Your task to perform on an android device: turn notification dots on Image 0: 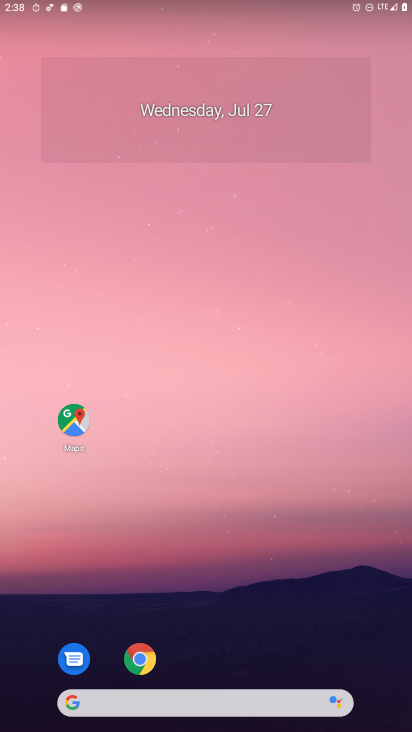
Step 0: press home button
Your task to perform on an android device: turn notification dots on Image 1: 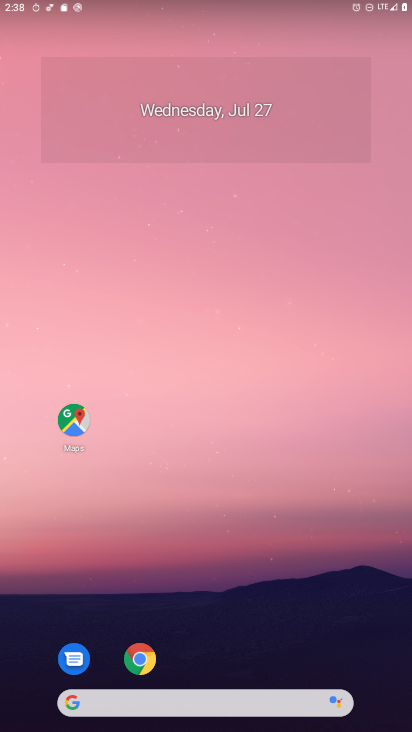
Step 1: drag from (342, 619) to (246, 46)
Your task to perform on an android device: turn notification dots on Image 2: 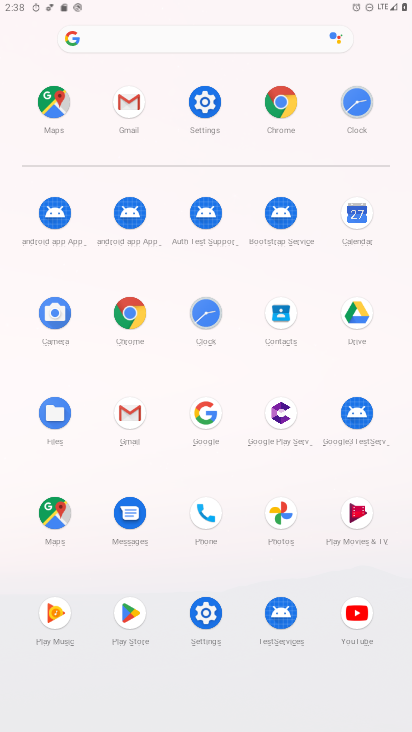
Step 2: click (205, 106)
Your task to perform on an android device: turn notification dots on Image 3: 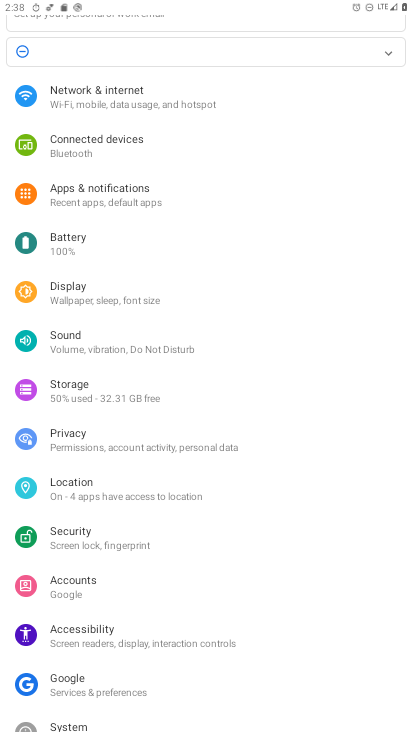
Step 3: click (143, 179)
Your task to perform on an android device: turn notification dots on Image 4: 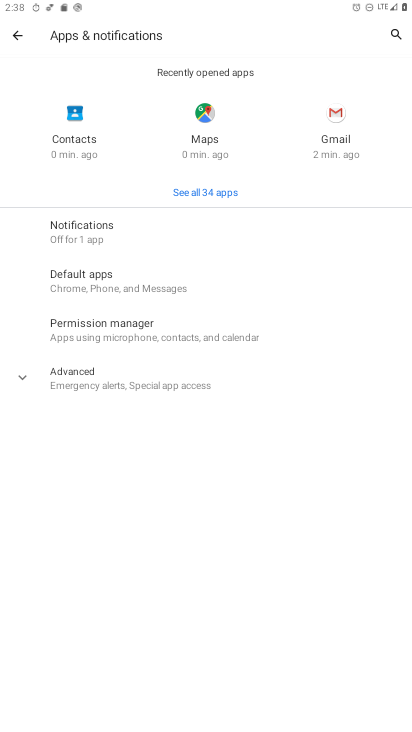
Step 4: click (89, 232)
Your task to perform on an android device: turn notification dots on Image 5: 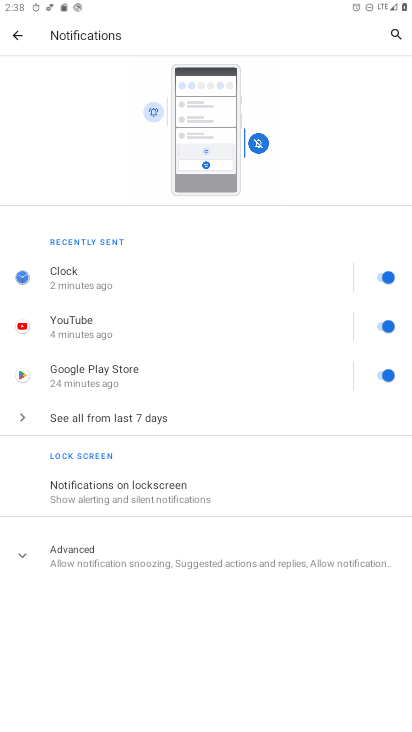
Step 5: click (120, 564)
Your task to perform on an android device: turn notification dots on Image 6: 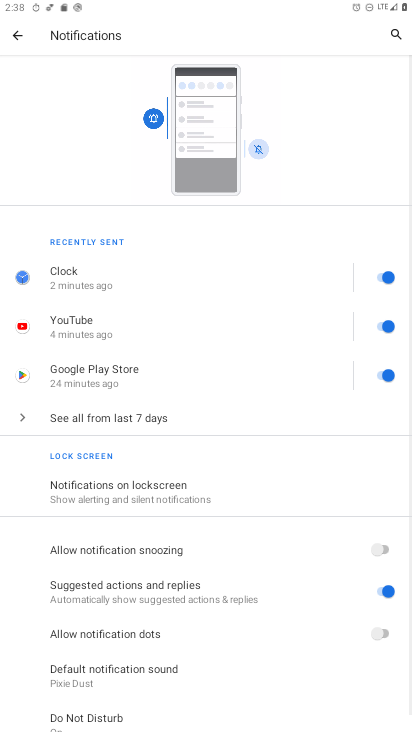
Step 6: drag from (228, 690) to (225, 367)
Your task to perform on an android device: turn notification dots on Image 7: 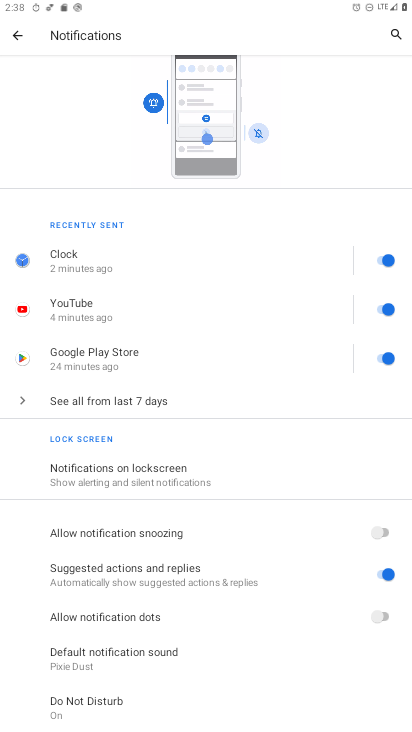
Step 7: click (372, 618)
Your task to perform on an android device: turn notification dots on Image 8: 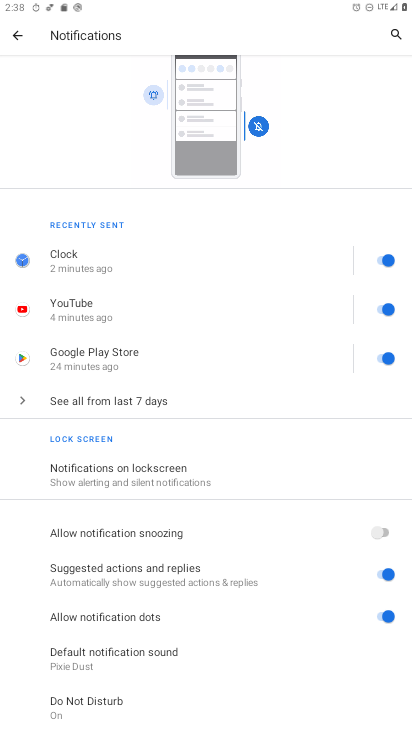
Step 8: task complete